Your task to perform on an android device: See recent photos Image 0: 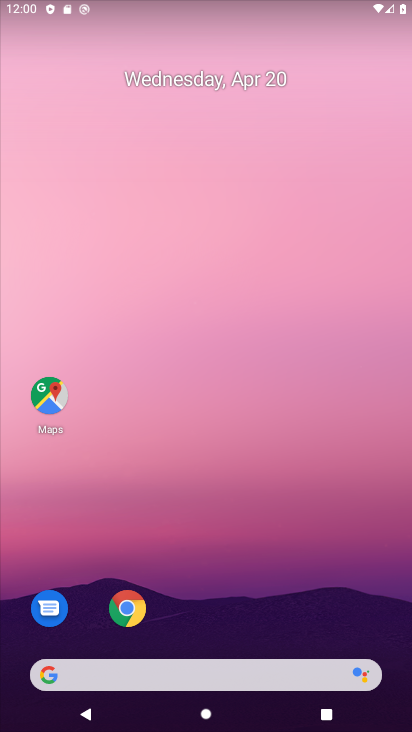
Step 0: drag from (263, 454) to (226, 27)
Your task to perform on an android device: See recent photos Image 1: 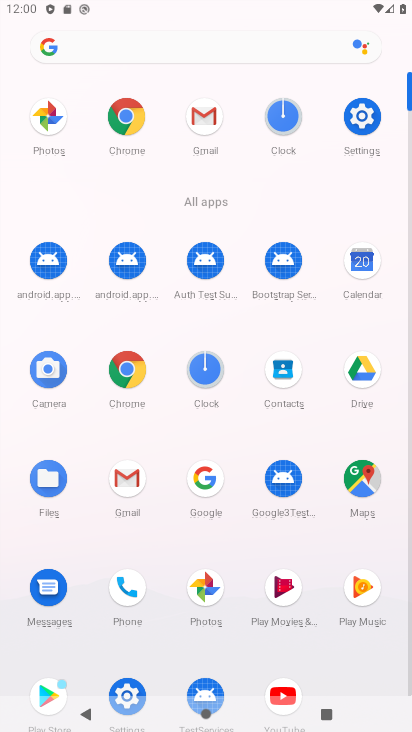
Step 1: click (364, 374)
Your task to perform on an android device: See recent photos Image 2: 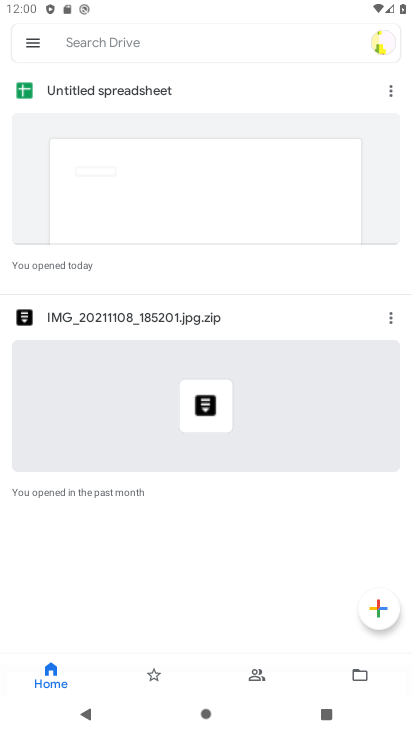
Step 2: click (28, 46)
Your task to perform on an android device: See recent photos Image 3: 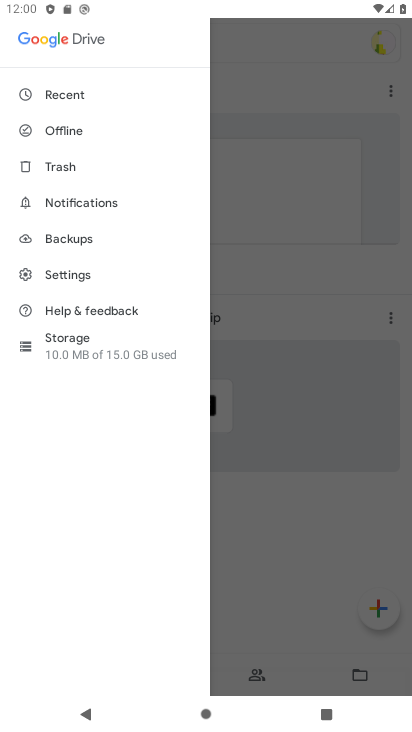
Step 3: click (64, 96)
Your task to perform on an android device: See recent photos Image 4: 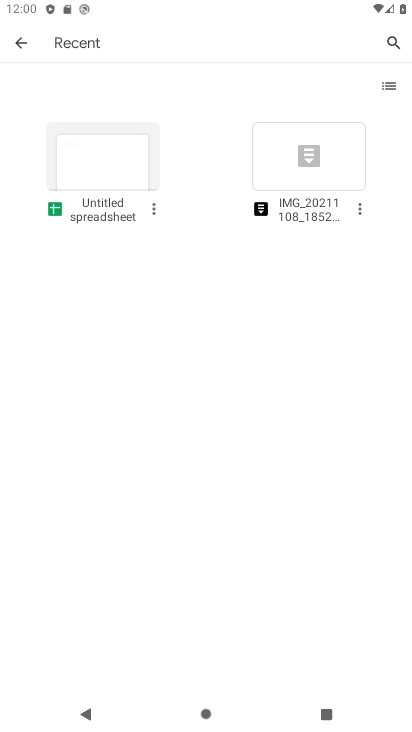
Step 4: click (315, 157)
Your task to perform on an android device: See recent photos Image 5: 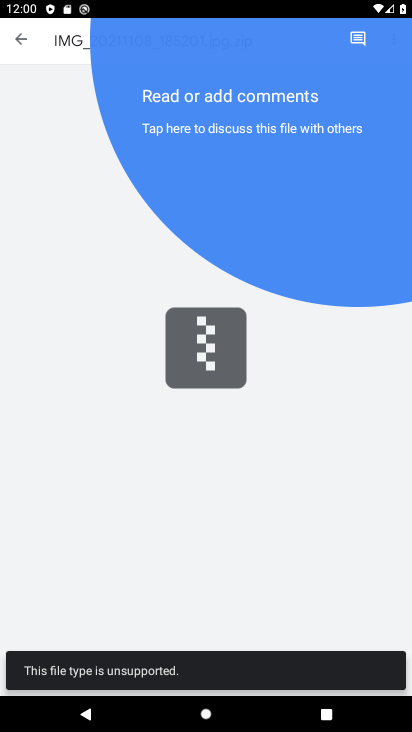
Step 5: click (323, 97)
Your task to perform on an android device: See recent photos Image 6: 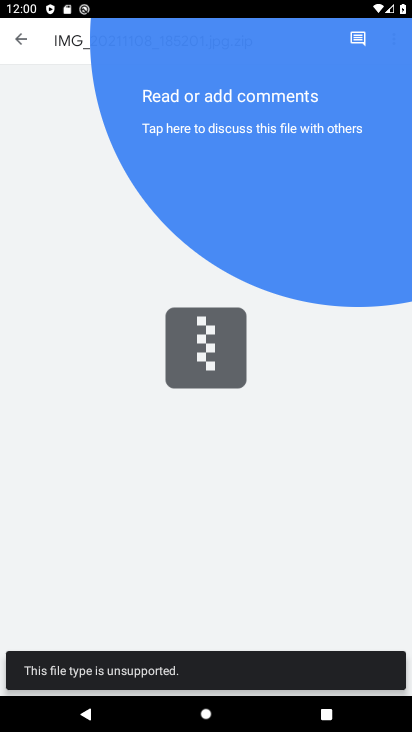
Step 6: click (286, 395)
Your task to perform on an android device: See recent photos Image 7: 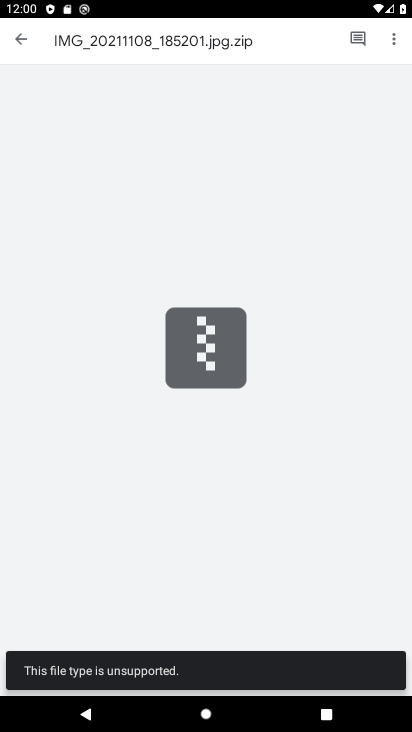
Step 7: task complete